Your task to perform on an android device: toggle sleep mode Image 0: 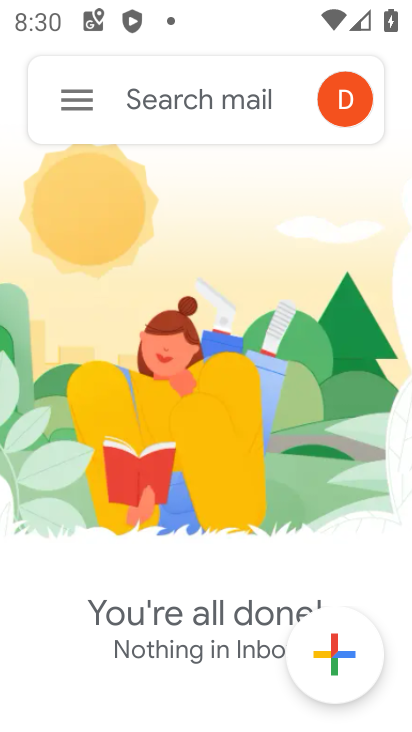
Step 0: press home button
Your task to perform on an android device: toggle sleep mode Image 1: 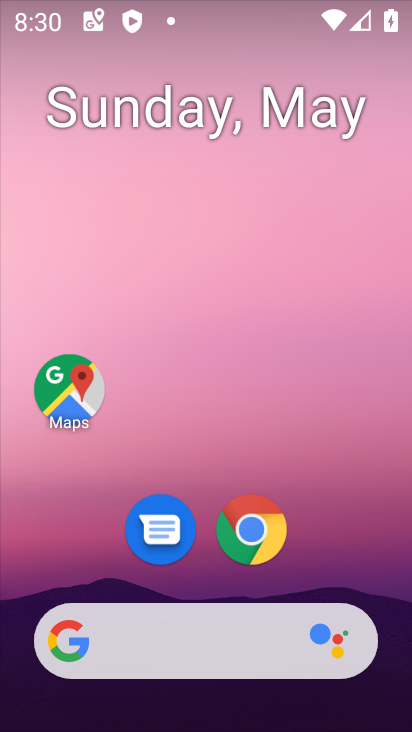
Step 1: drag from (368, 586) to (309, 14)
Your task to perform on an android device: toggle sleep mode Image 2: 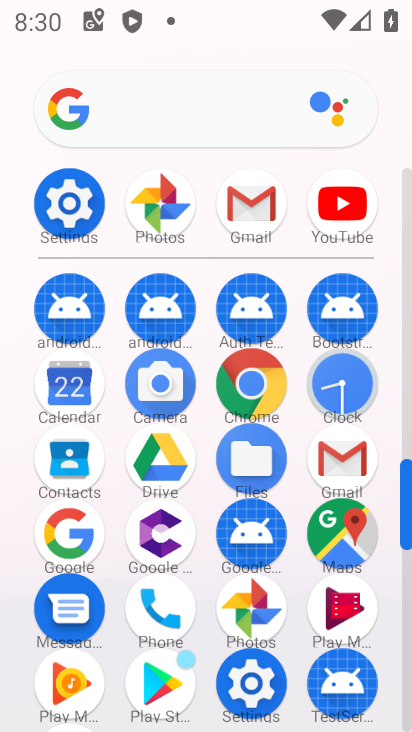
Step 2: click (66, 215)
Your task to perform on an android device: toggle sleep mode Image 3: 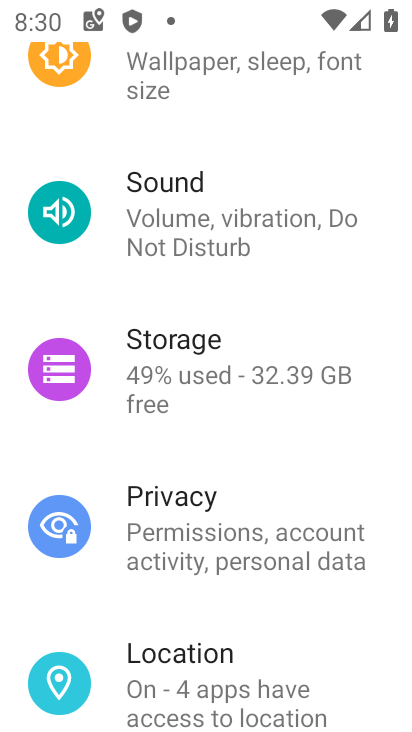
Step 3: drag from (282, 240) to (263, 531)
Your task to perform on an android device: toggle sleep mode Image 4: 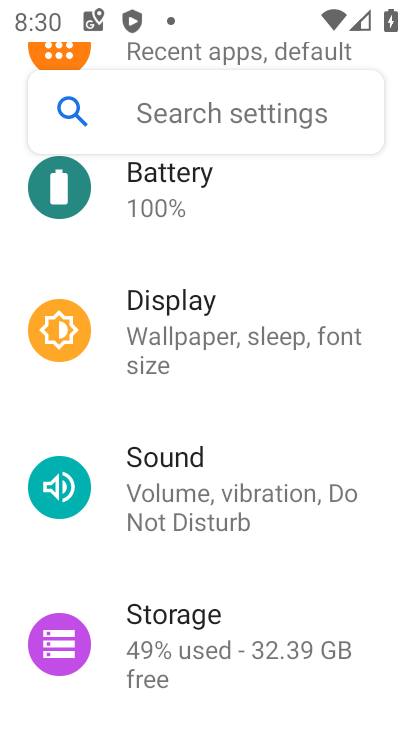
Step 4: click (187, 342)
Your task to perform on an android device: toggle sleep mode Image 5: 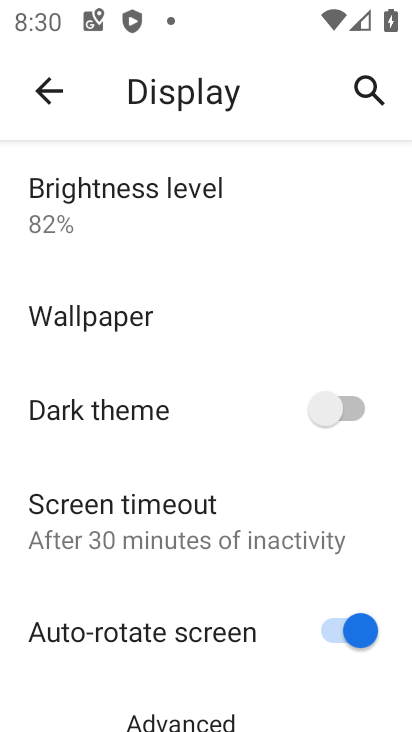
Step 5: drag from (156, 523) to (143, 140)
Your task to perform on an android device: toggle sleep mode Image 6: 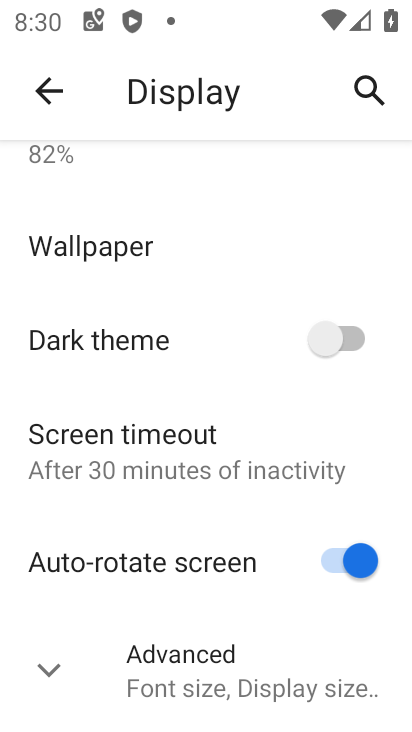
Step 6: click (49, 681)
Your task to perform on an android device: toggle sleep mode Image 7: 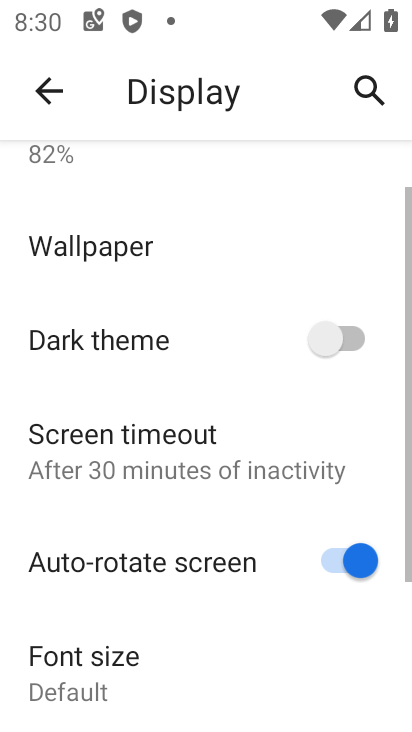
Step 7: task complete